Your task to perform on an android device: find photos in the google photos app Image 0: 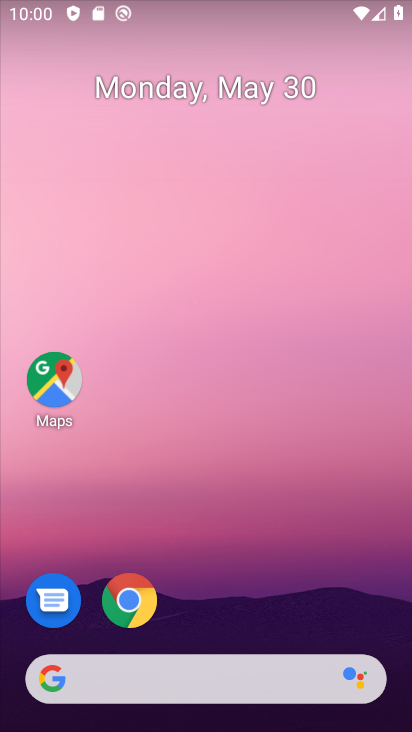
Step 0: drag from (219, 470) to (296, 2)
Your task to perform on an android device: find photos in the google photos app Image 1: 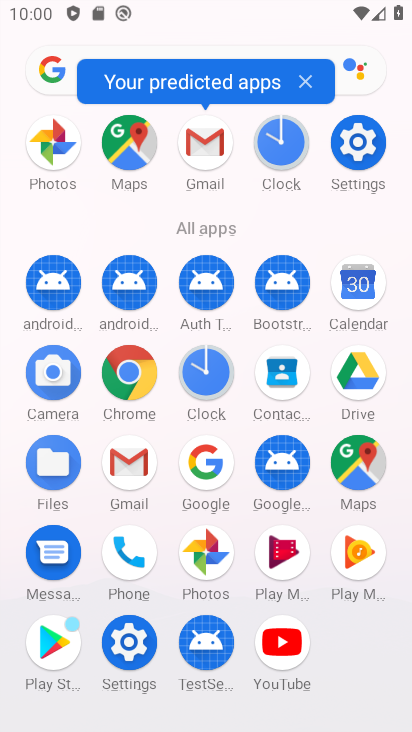
Step 1: click (220, 555)
Your task to perform on an android device: find photos in the google photos app Image 2: 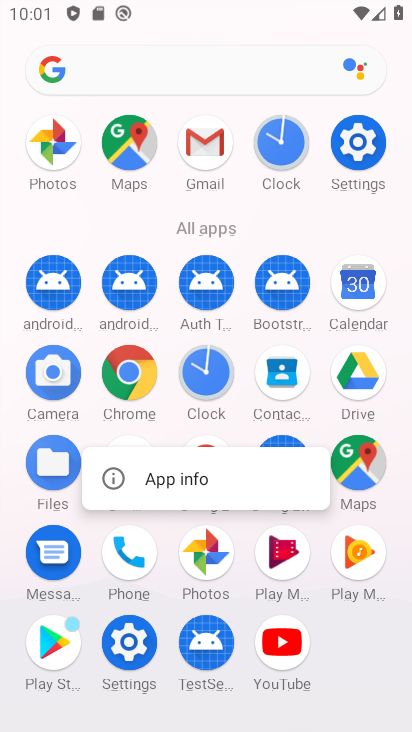
Step 2: click (209, 559)
Your task to perform on an android device: find photos in the google photos app Image 3: 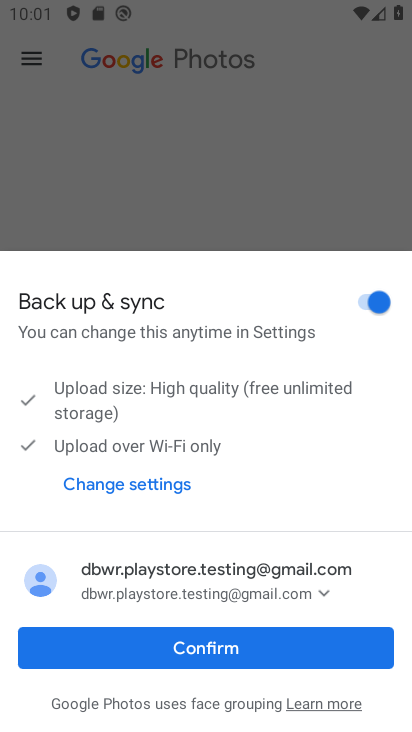
Step 3: click (252, 640)
Your task to perform on an android device: find photos in the google photos app Image 4: 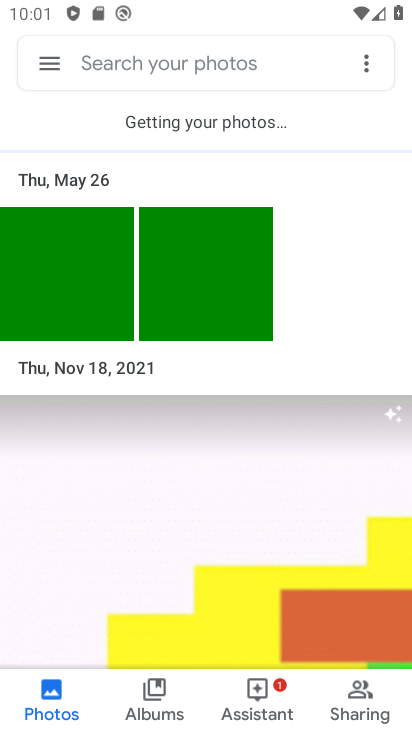
Step 4: task complete